Your task to perform on an android device: show emergency info Image 0: 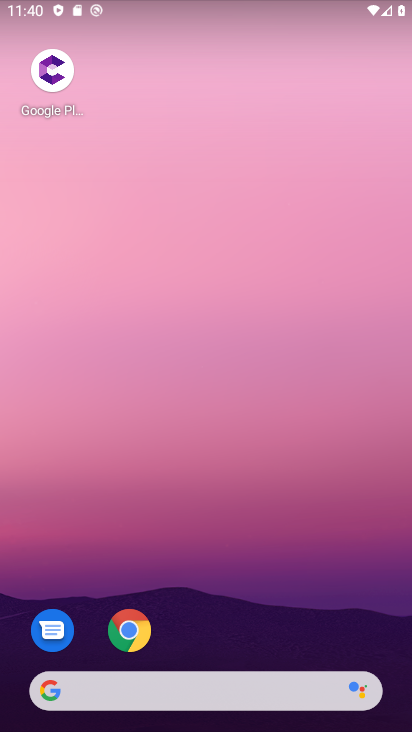
Step 0: drag from (321, 632) to (267, 131)
Your task to perform on an android device: show emergency info Image 1: 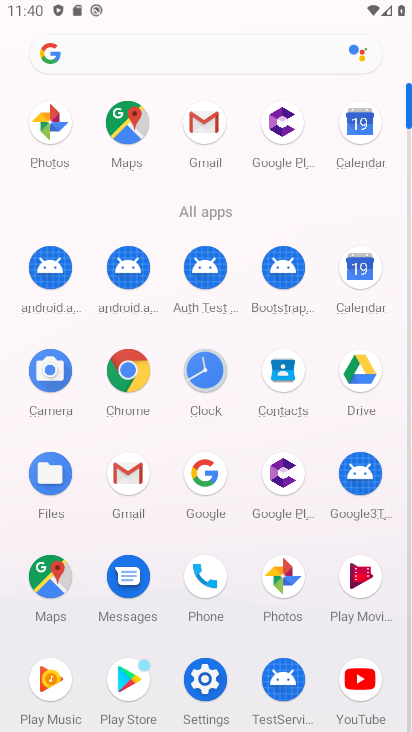
Step 1: click (206, 679)
Your task to perform on an android device: show emergency info Image 2: 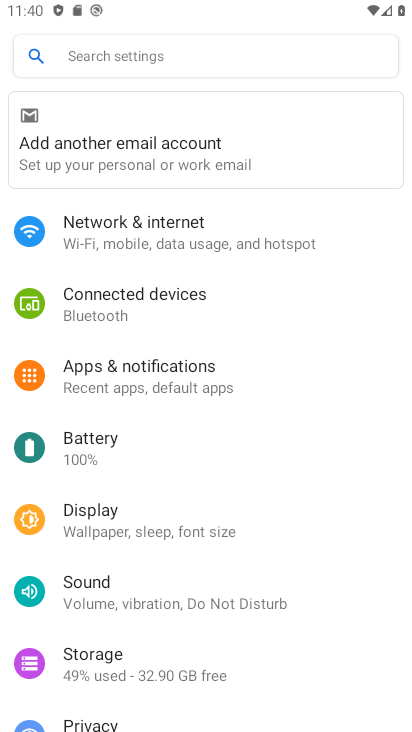
Step 2: drag from (272, 648) to (300, 343)
Your task to perform on an android device: show emergency info Image 3: 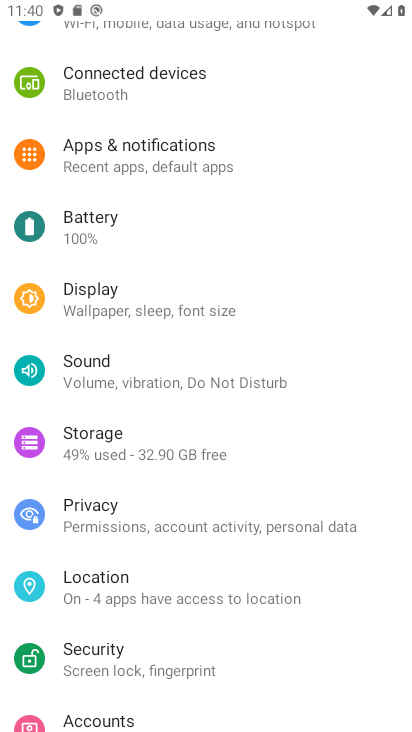
Step 3: drag from (305, 635) to (355, 378)
Your task to perform on an android device: show emergency info Image 4: 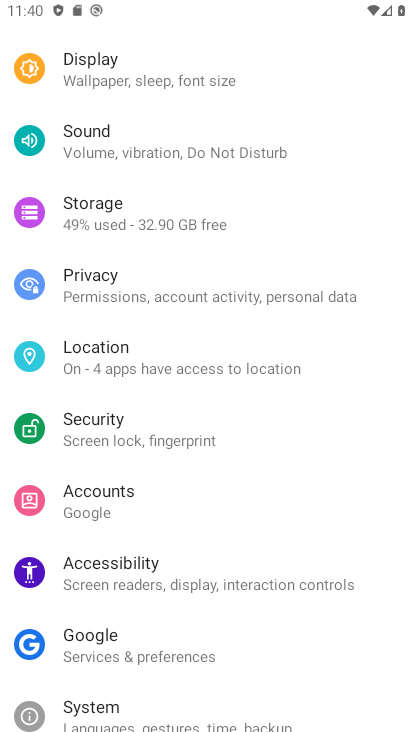
Step 4: drag from (292, 657) to (327, 262)
Your task to perform on an android device: show emergency info Image 5: 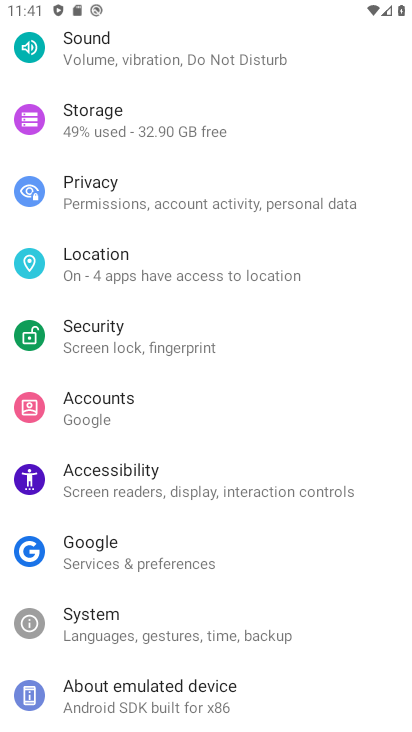
Step 5: click (158, 718)
Your task to perform on an android device: show emergency info Image 6: 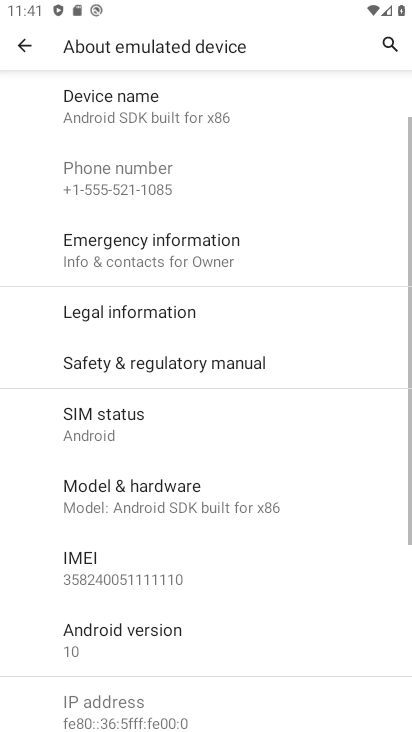
Step 6: click (122, 246)
Your task to perform on an android device: show emergency info Image 7: 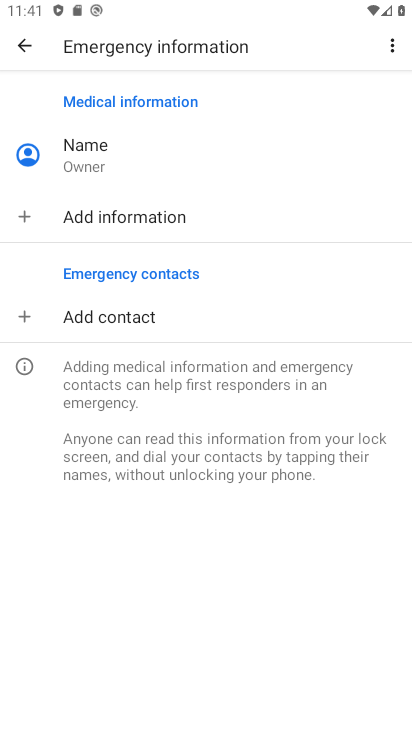
Step 7: task complete